Your task to perform on an android device: toggle translation in the chrome app Image 0: 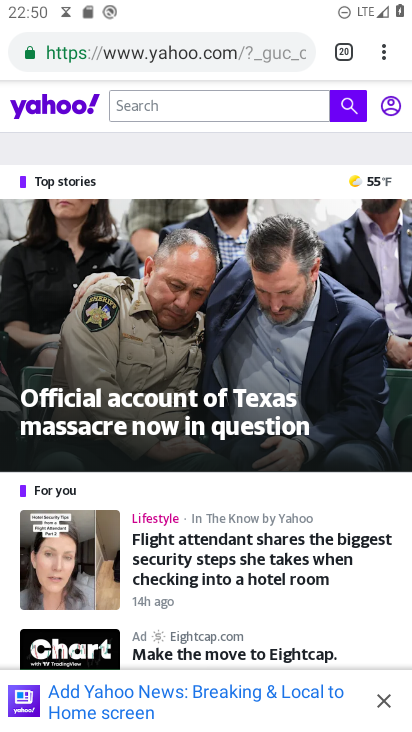
Step 0: click (378, 53)
Your task to perform on an android device: toggle translation in the chrome app Image 1: 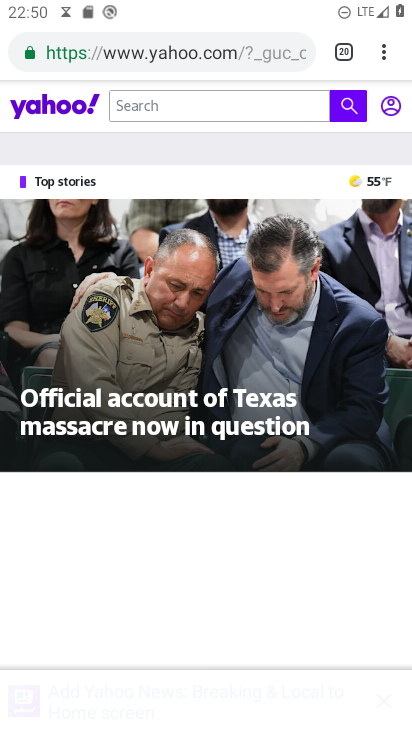
Step 1: click (384, 55)
Your task to perform on an android device: toggle translation in the chrome app Image 2: 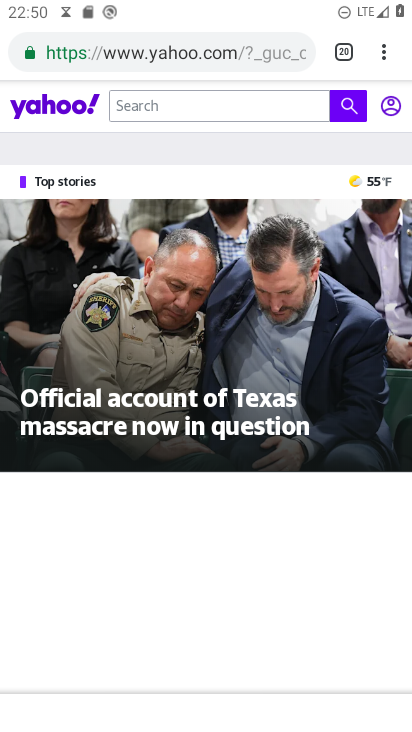
Step 2: click (381, 48)
Your task to perform on an android device: toggle translation in the chrome app Image 3: 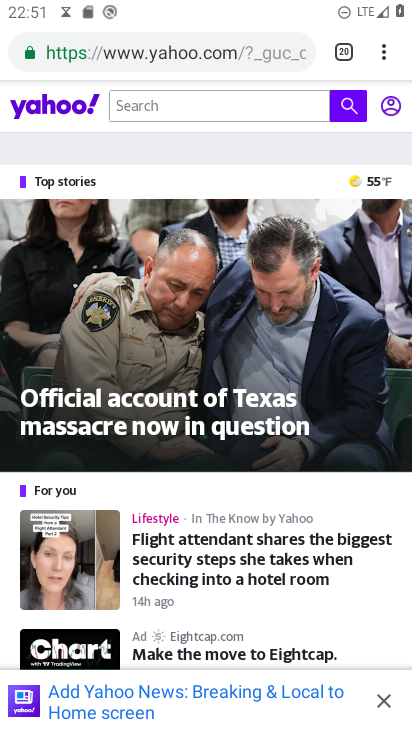
Step 3: click (383, 51)
Your task to perform on an android device: toggle translation in the chrome app Image 4: 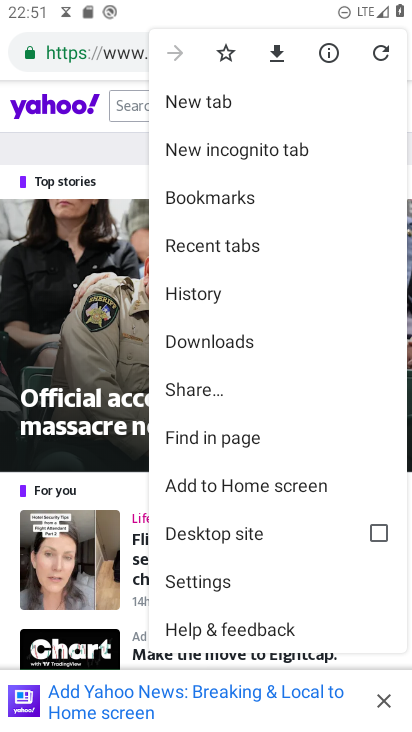
Step 4: click (222, 578)
Your task to perform on an android device: toggle translation in the chrome app Image 5: 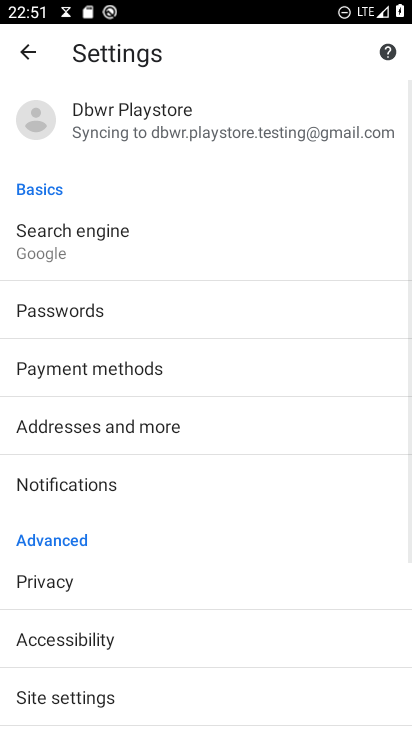
Step 5: drag from (132, 590) to (198, 255)
Your task to perform on an android device: toggle translation in the chrome app Image 6: 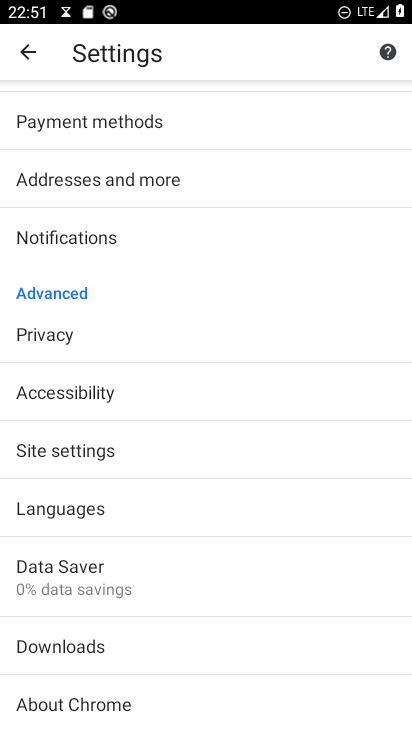
Step 6: click (117, 509)
Your task to perform on an android device: toggle translation in the chrome app Image 7: 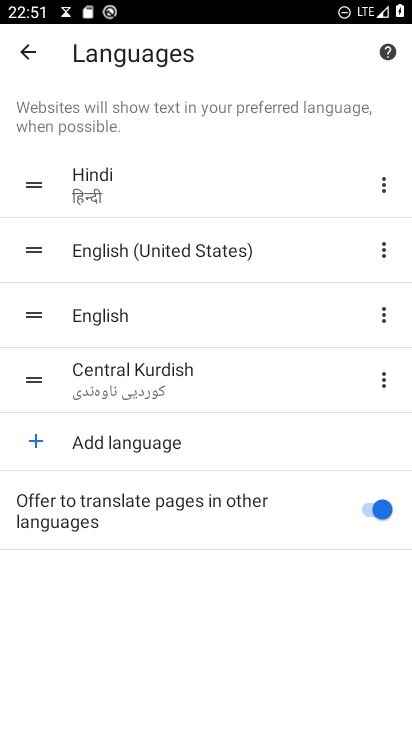
Step 7: click (365, 507)
Your task to perform on an android device: toggle translation in the chrome app Image 8: 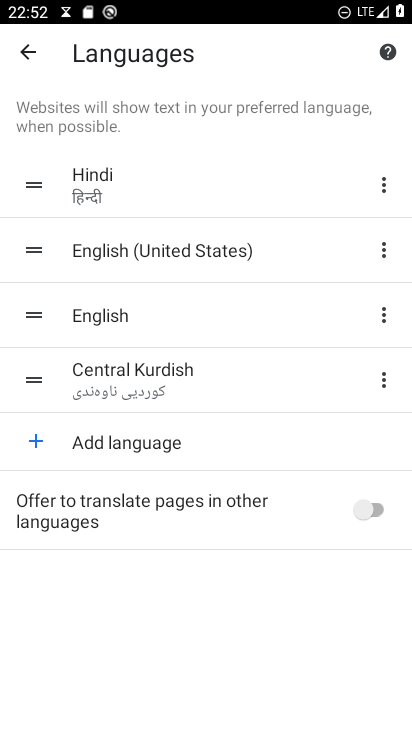
Step 8: task complete